Your task to perform on an android device: change timer sound Image 0: 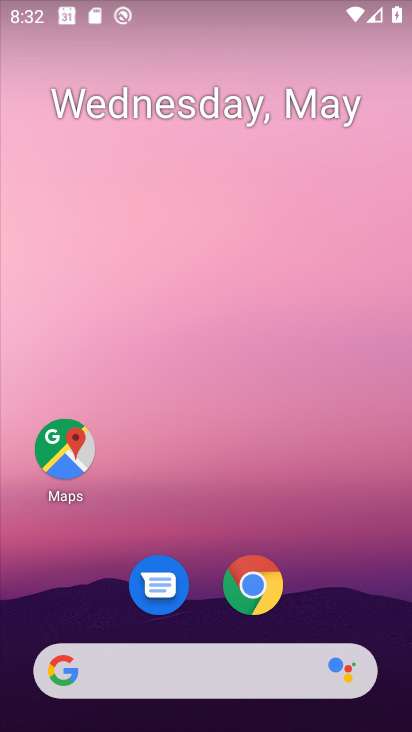
Step 0: drag from (352, 549) to (254, 0)
Your task to perform on an android device: change timer sound Image 1: 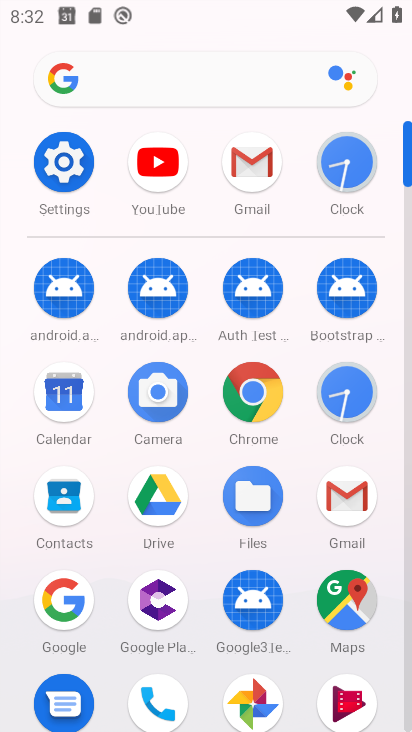
Step 1: click (354, 170)
Your task to perform on an android device: change timer sound Image 2: 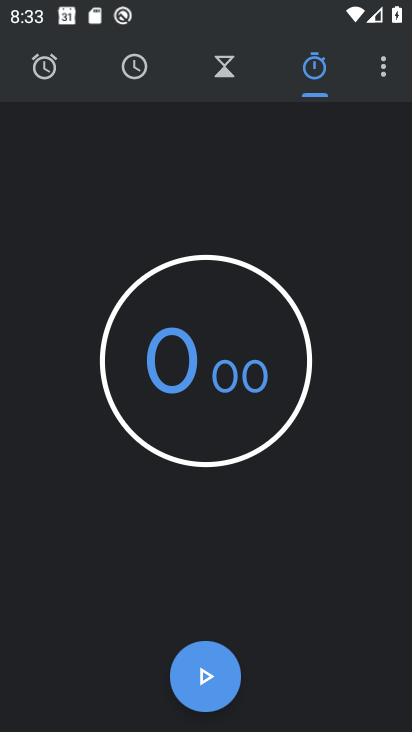
Step 2: click (384, 59)
Your task to perform on an android device: change timer sound Image 3: 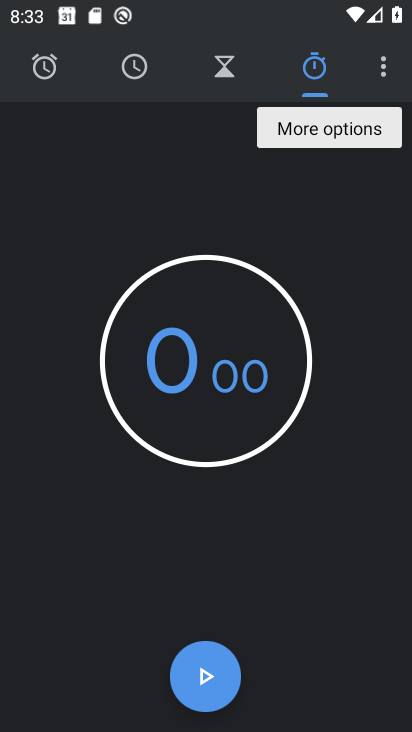
Step 3: click (381, 62)
Your task to perform on an android device: change timer sound Image 4: 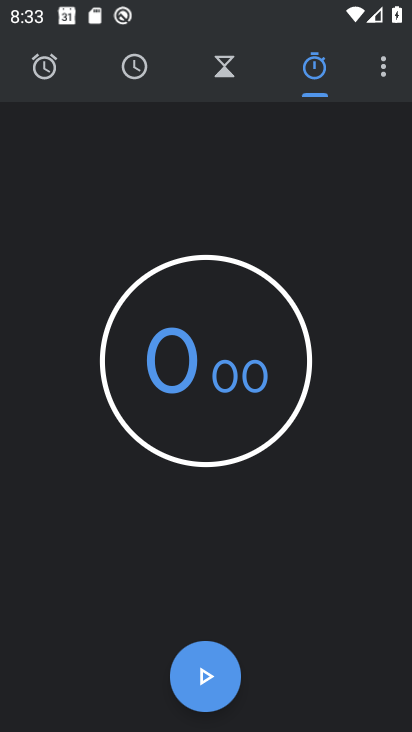
Step 4: click (385, 74)
Your task to perform on an android device: change timer sound Image 5: 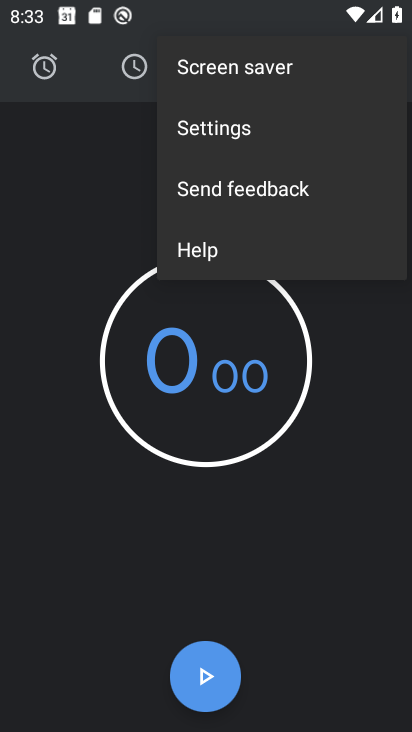
Step 5: click (280, 130)
Your task to perform on an android device: change timer sound Image 6: 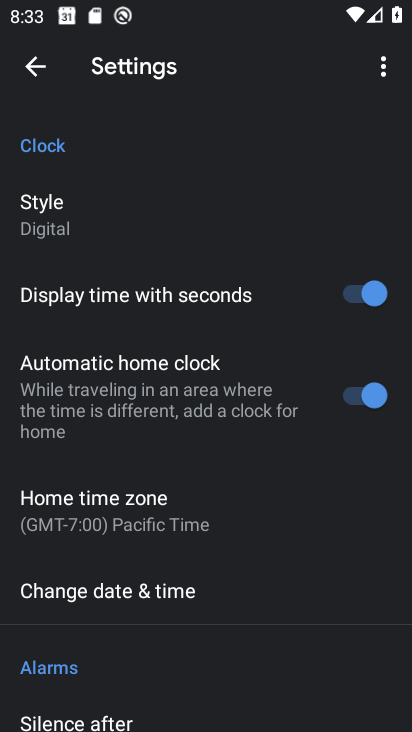
Step 6: drag from (230, 668) to (234, 14)
Your task to perform on an android device: change timer sound Image 7: 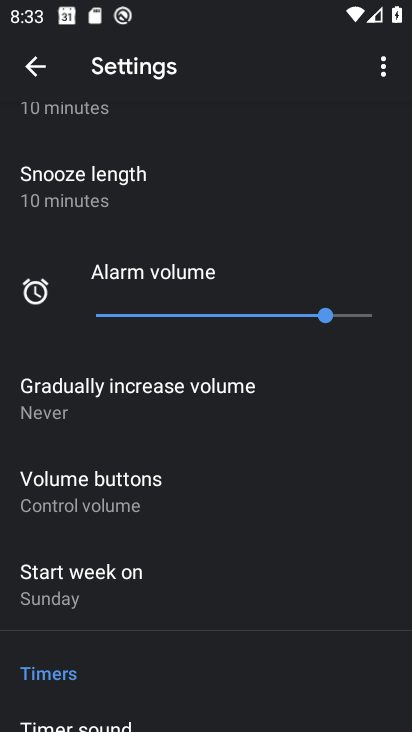
Step 7: drag from (217, 589) to (183, 97)
Your task to perform on an android device: change timer sound Image 8: 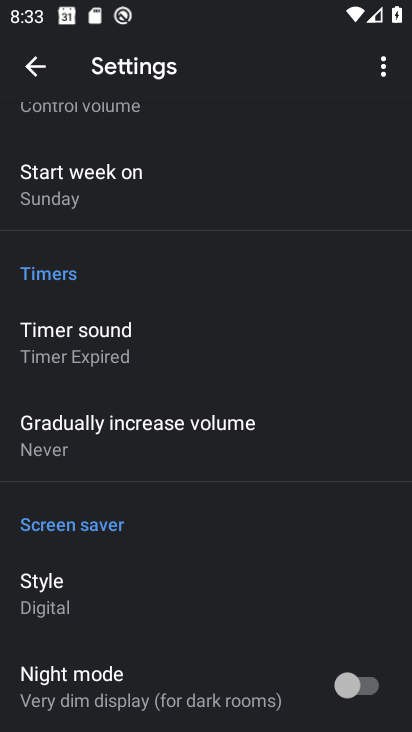
Step 8: click (147, 334)
Your task to perform on an android device: change timer sound Image 9: 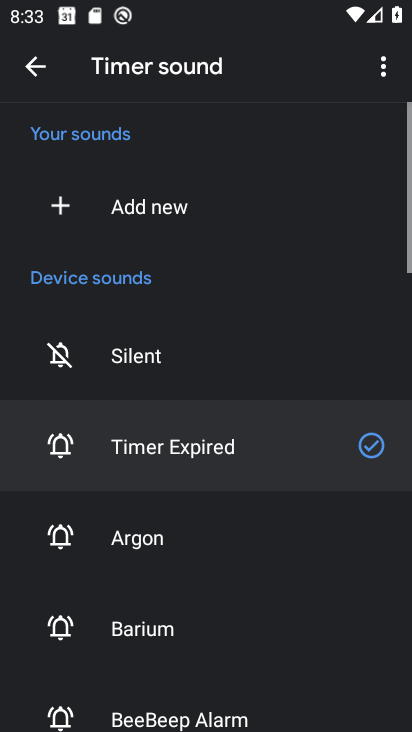
Step 9: click (162, 534)
Your task to perform on an android device: change timer sound Image 10: 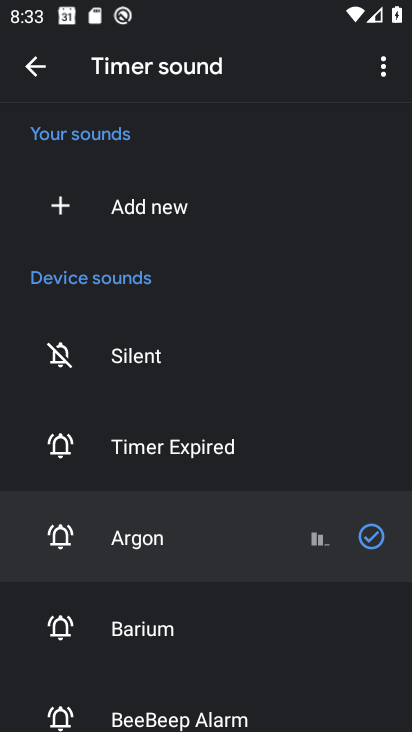
Step 10: task complete